Your task to perform on an android device: When is my next appointment? Image 0: 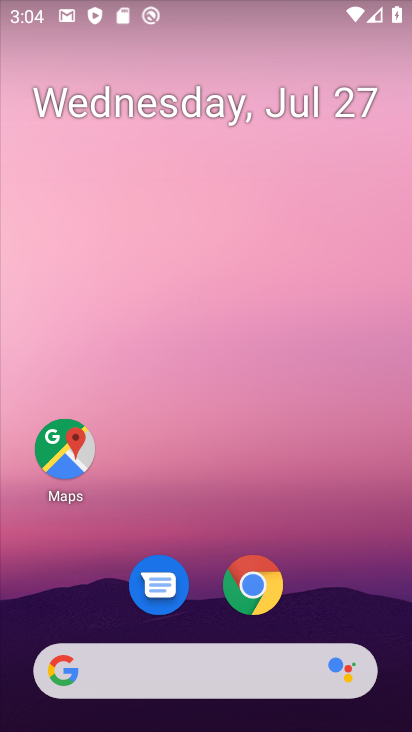
Step 0: drag from (226, 534) to (240, 26)
Your task to perform on an android device: When is my next appointment? Image 1: 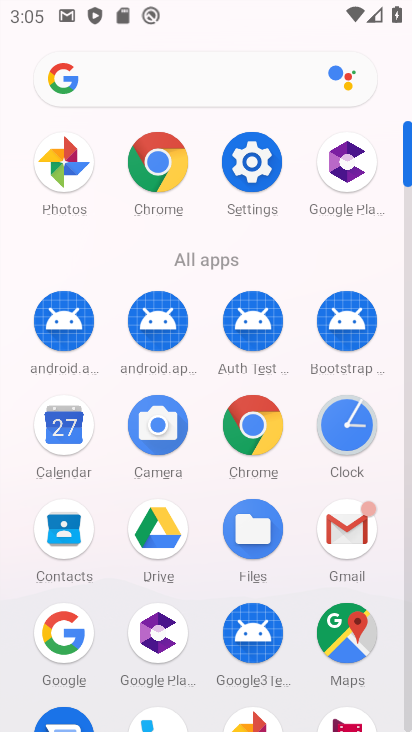
Step 1: click (71, 436)
Your task to perform on an android device: When is my next appointment? Image 2: 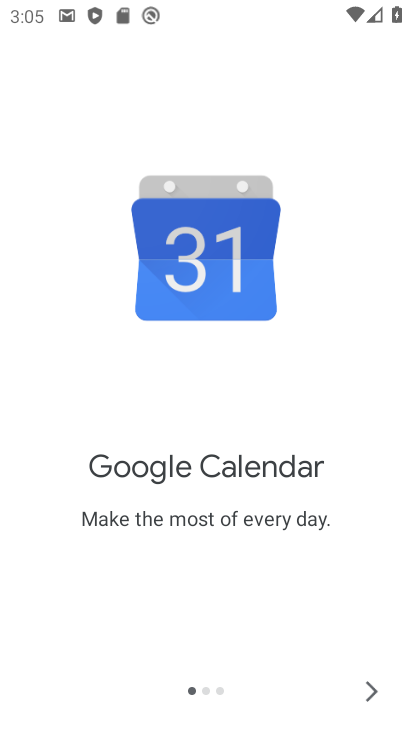
Step 2: click (371, 691)
Your task to perform on an android device: When is my next appointment? Image 3: 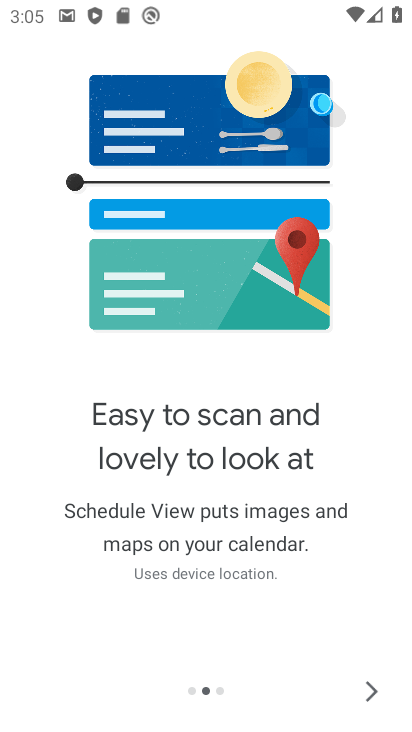
Step 3: click (371, 685)
Your task to perform on an android device: When is my next appointment? Image 4: 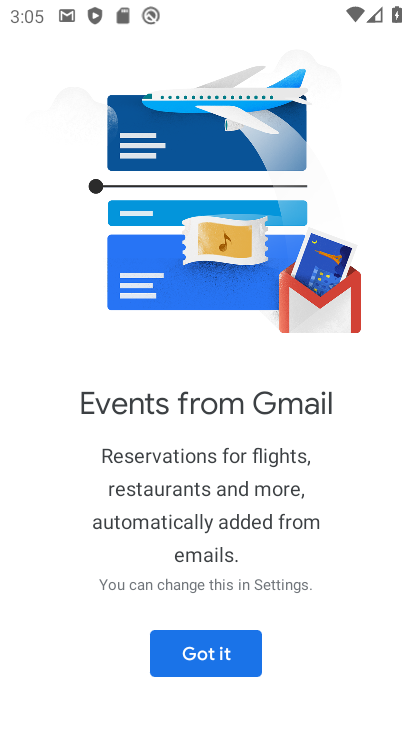
Step 4: click (250, 649)
Your task to perform on an android device: When is my next appointment? Image 5: 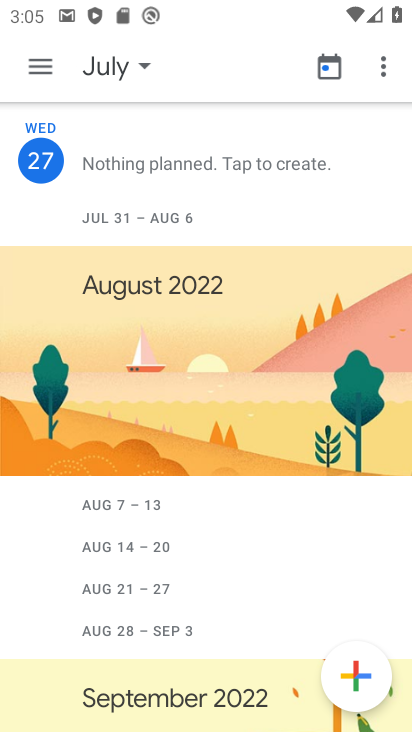
Step 5: task complete